Your task to perform on an android device: open wifi settings Image 0: 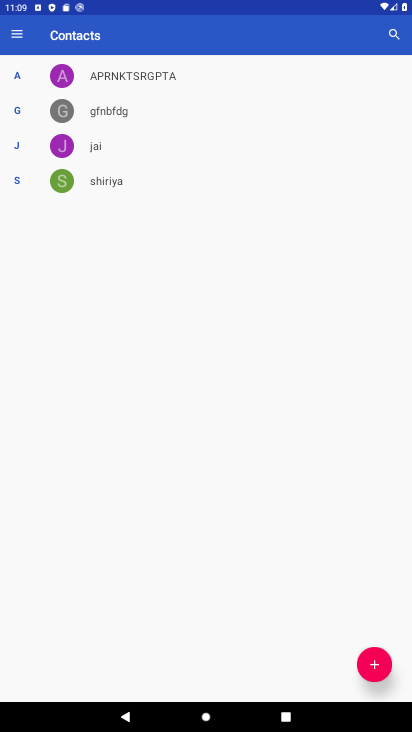
Step 0: press home button
Your task to perform on an android device: open wifi settings Image 1: 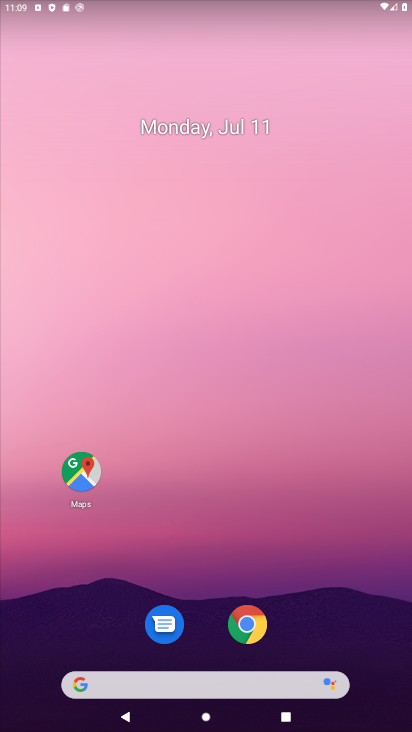
Step 1: drag from (205, 619) to (151, 145)
Your task to perform on an android device: open wifi settings Image 2: 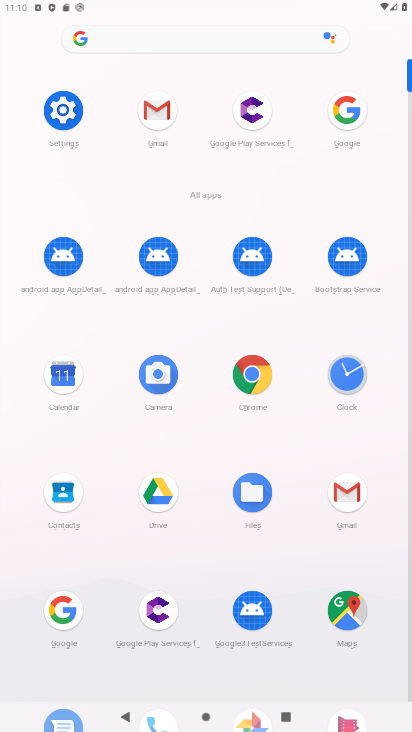
Step 2: click (83, 124)
Your task to perform on an android device: open wifi settings Image 3: 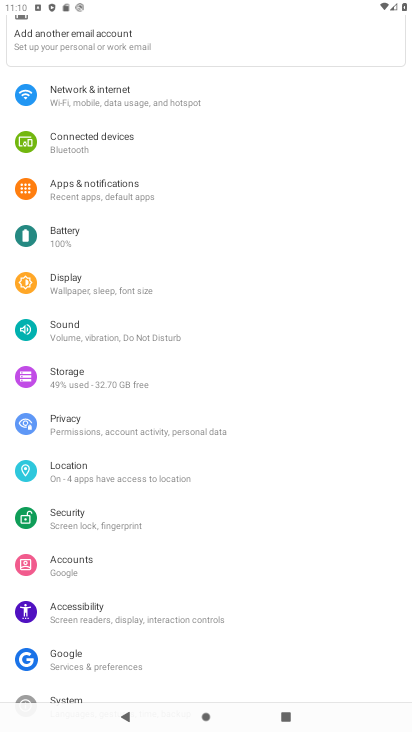
Step 3: click (96, 108)
Your task to perform on an android device: open wifi settings Image 4: 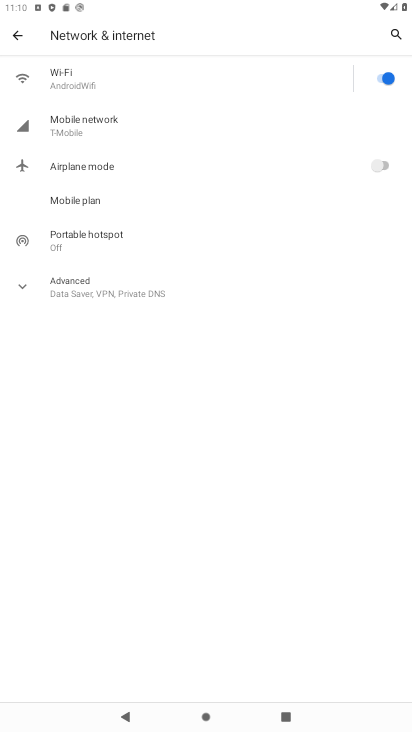
Step 4: click (96, 82)
Your task to perform on an android device: open wifi settings Image 5: 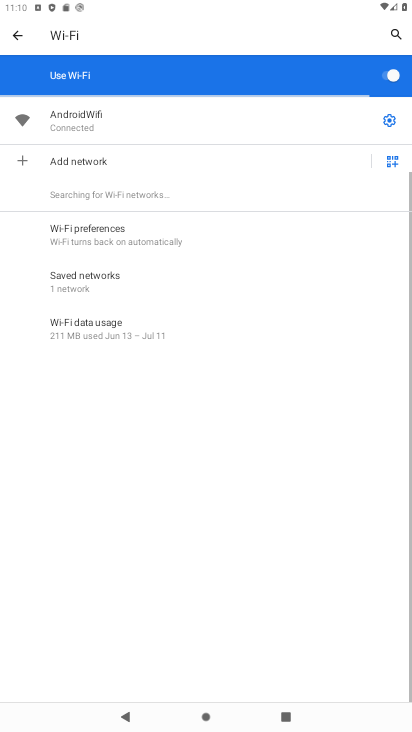
Step 5: task complete